Your task to perform on an android device: Open my contact list Image 0: 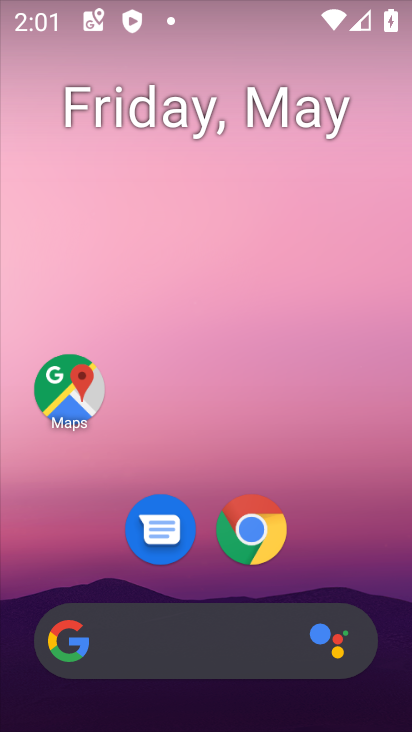
Step 0: drag from (388, 546) to (295, 76)
Your task to perform on an android device: Open my contact list Image 1: 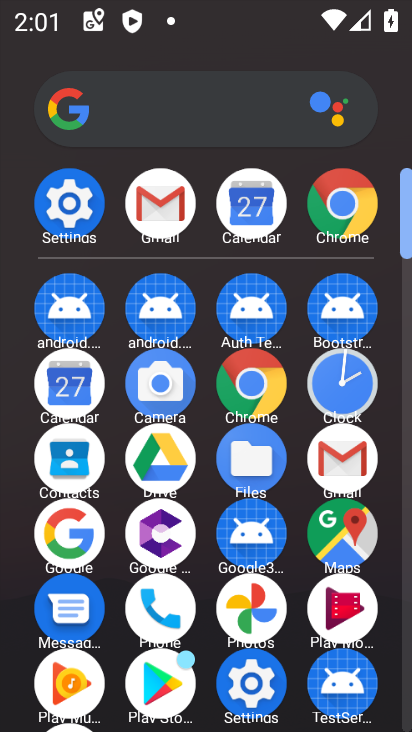
Step 1: click (77, 447)
Your task to perform on an android device: Open my contact list Image 2: 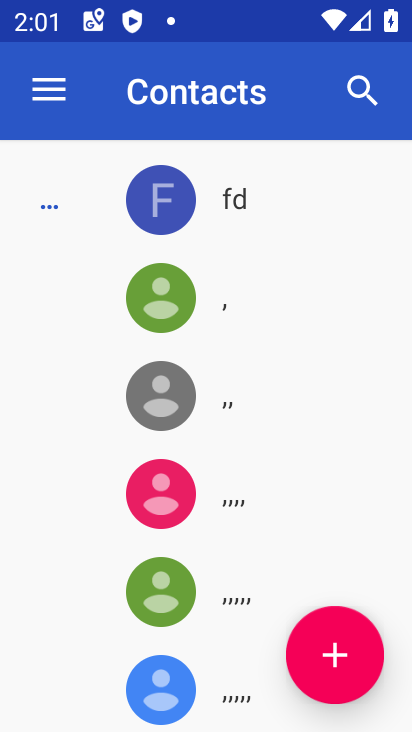
Step 2: task complete